Your task to perform on an android device: Turn off the flashlight Image 0: 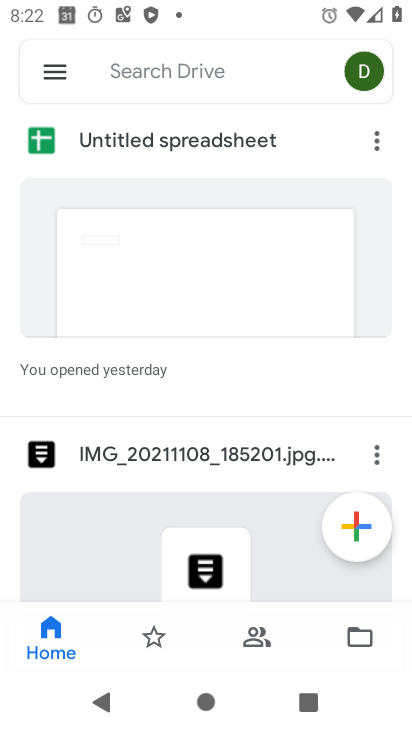
Step 0: press home button
Your task to perform on an android device: Turn off the flashlight Image 1: 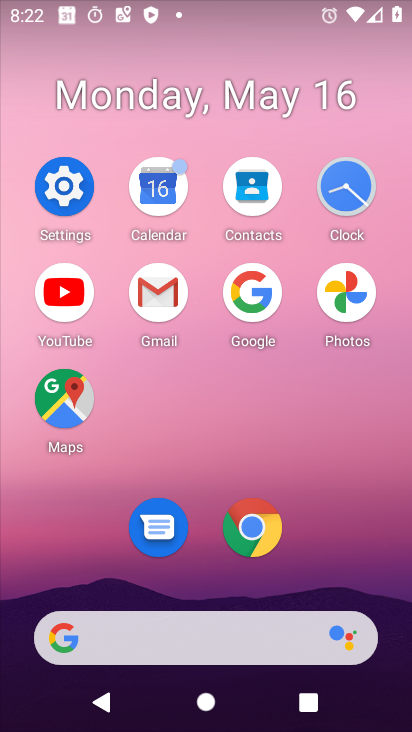
Step 1: task complete